Your task to perform on an android device: Open Google Maps and go to "Timeline" Image 0: 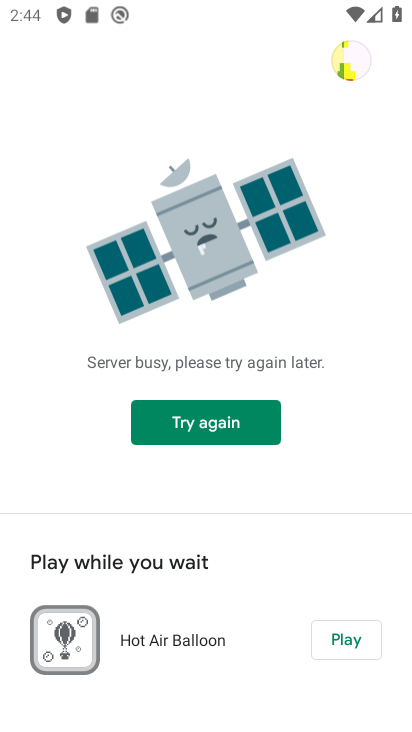
Step 0: press back button
Your task to perform on an android device: Open Google Maps and go to "Timeline" Image 1: 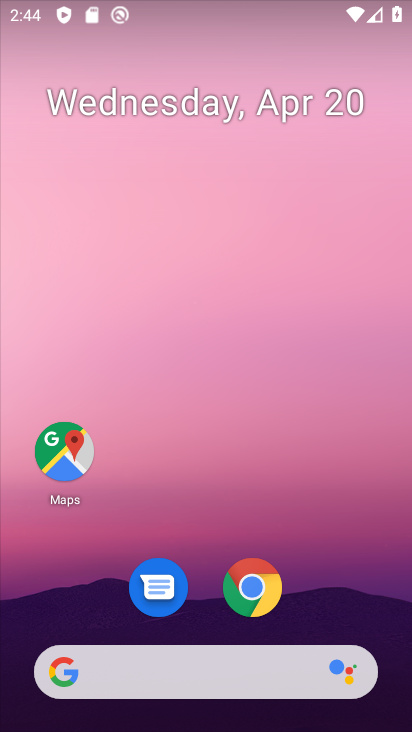
Step 1: click (66, 464)
Your task to perform on an android device: Open Google Maps and go to "Timeline" Image 2: 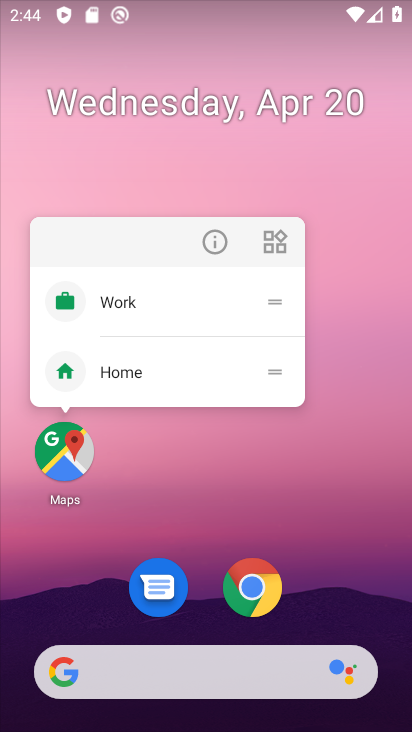
Step 2: click (60, 446)
Your task to perform on an android device: Open Google Maps and go to "Timeline" Image 3: 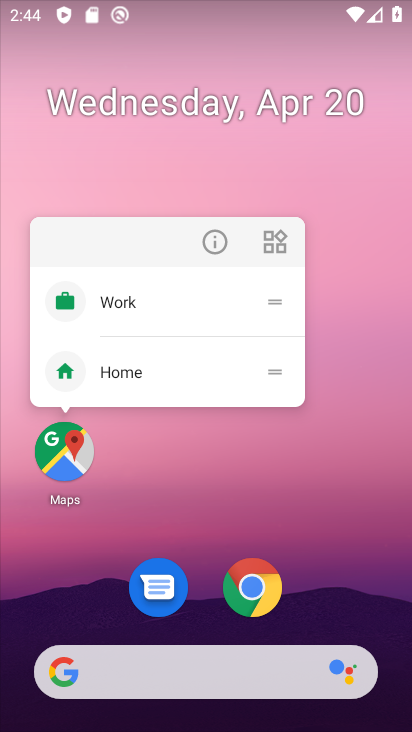
Step 3: click (55, 462)
Your task to perform on an android device: Open Google Maps and go to "Timeline" Image 4: 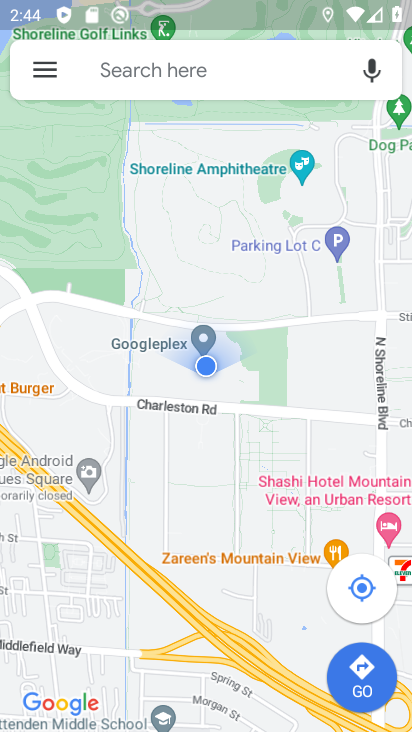
Step 4: click (44, 77)
Your task to perform on an android device: Open Google Maps and go to "Timeline" Image 5: 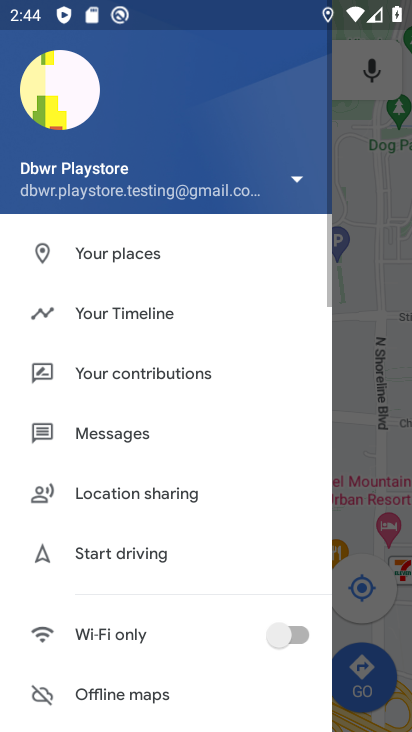
Step 5: click (154, 318)
Your task to perform on an android device: Open Google Maps and go to "Timeline" Image 6: 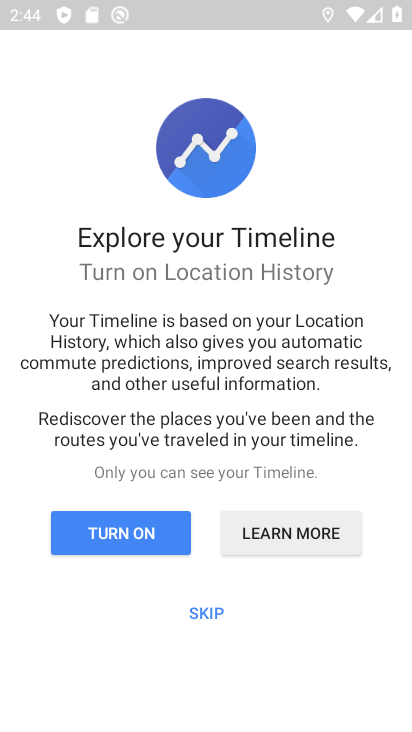
Step 6: click (211, 614)
Your task to perform on an android device: Open Google Maps and go to "Timeline" Image 7: 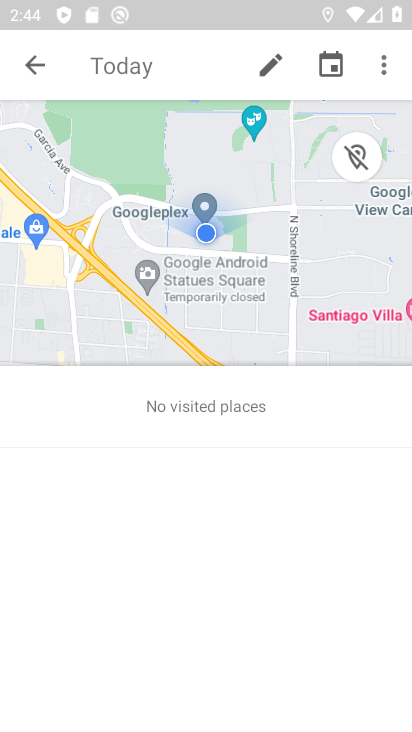
Step 7: task complete